Your task to perform on an android device: Do I have any events tomorrow? Image 0: 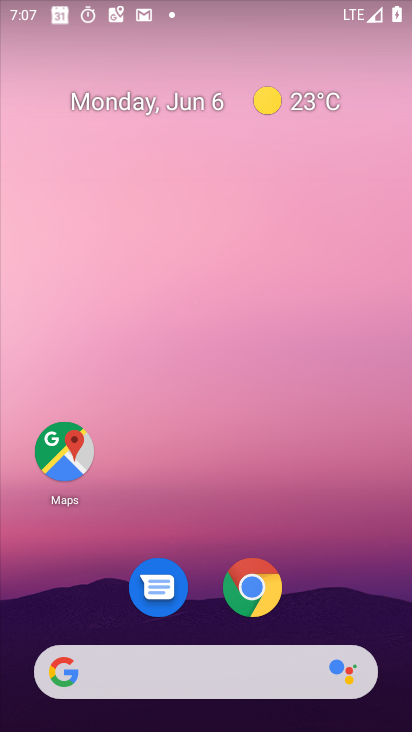
Step 0: drag from (397, 657) to (272, 4)
Your task to perform on an android device: Do I have any events tomorrow? Image 1: 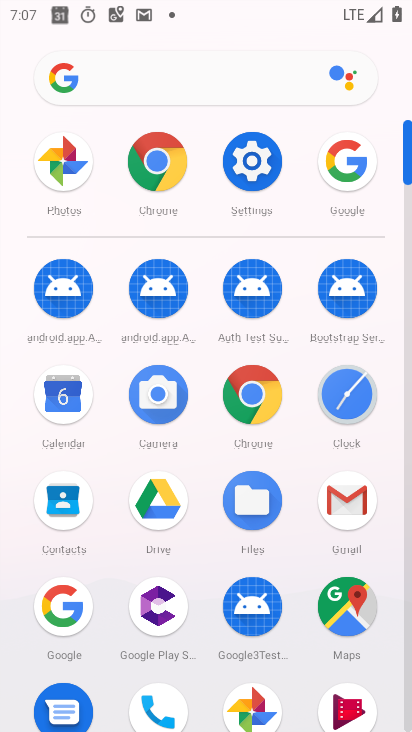
Step 1: click (65, 404)
Your task to perform on an android device: Do I have any events tomorrow? Image 2: 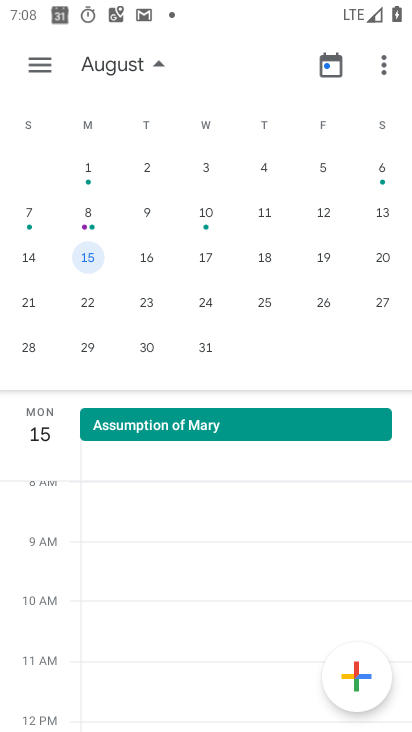
Step 2: task complete